Your task to perform on an android device: Open Youtube and go to "Your channel" Image 0: 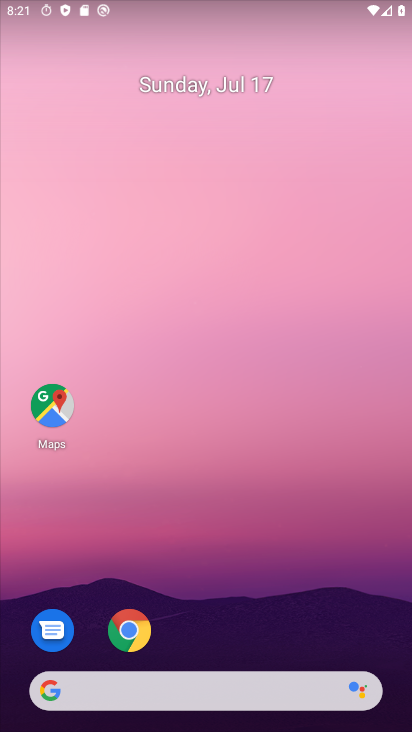
Step 0: click (91, 686)
Your task to perform on an android device: Open Youtube and go to "Your channel" Image 1: 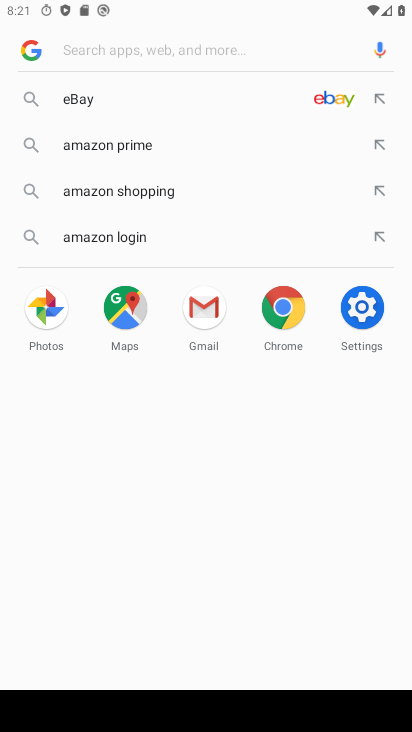
Step 1: press home button
Your task to perform on an android device: Open Youtube and go to "Your channel" Image 2: 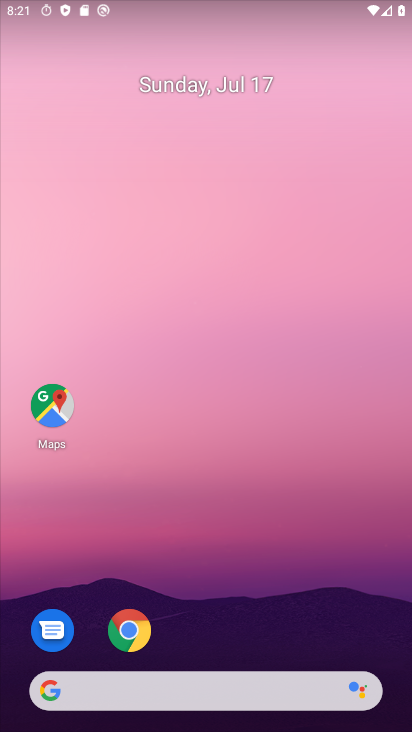
Step 2: drag from (66, 612) to (354, 44)
Your task to perform on an android device: Open Youtube and go to "Your channel" Image 3: 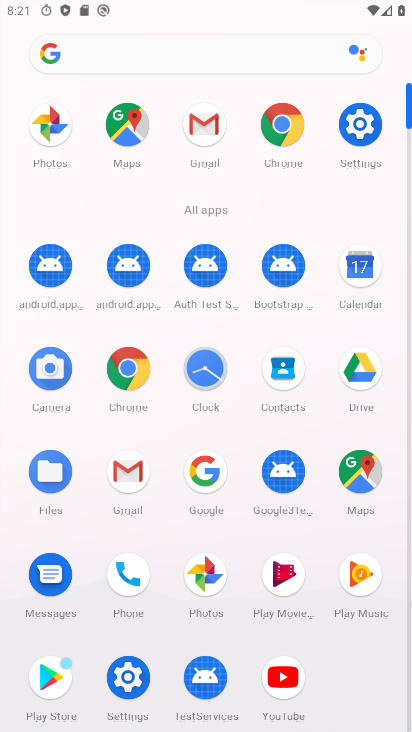
Step 3: click (286, 678)
Your task to perform on an android device: Open Youtube and go to "Your channel" Image 4: 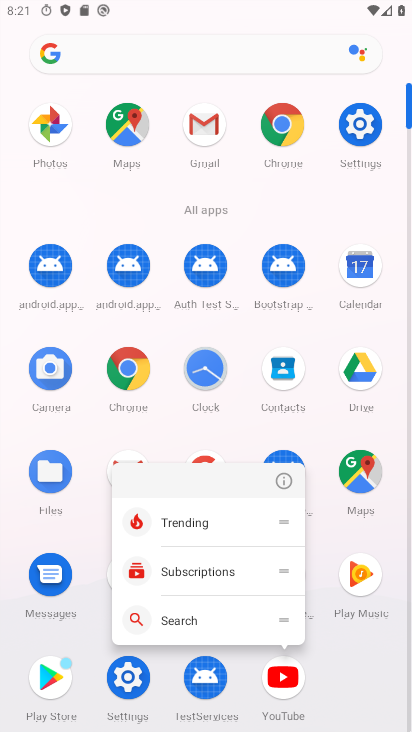
Step 4: click (286, 678)
Your task to perform on an android device: Open Youtube and go to "Your channel" Image 5: 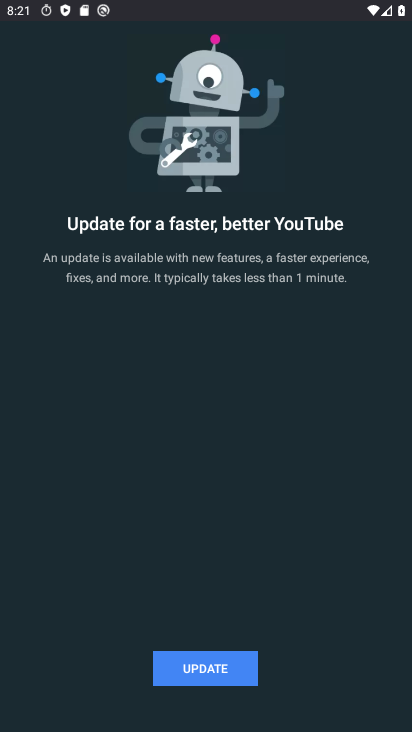
Step 5: click (204, 668)
Your task to perform on an android device: Open Youtube and go to "Your channel" Image 6: 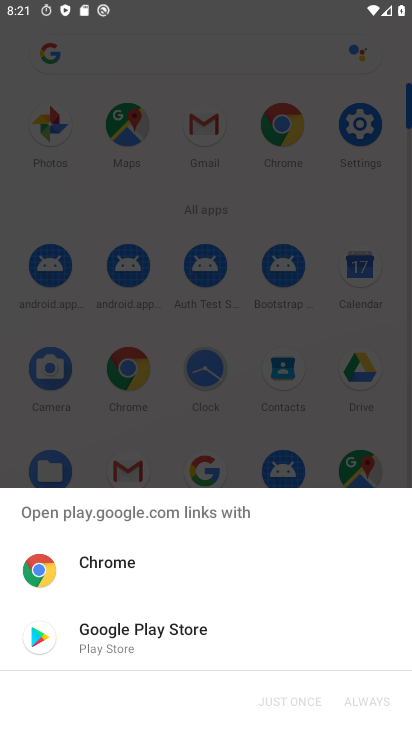
Step 6: click (99, 633)
Your task to perform on an android device: Open Youtube and go to "Your channel" Image 7: 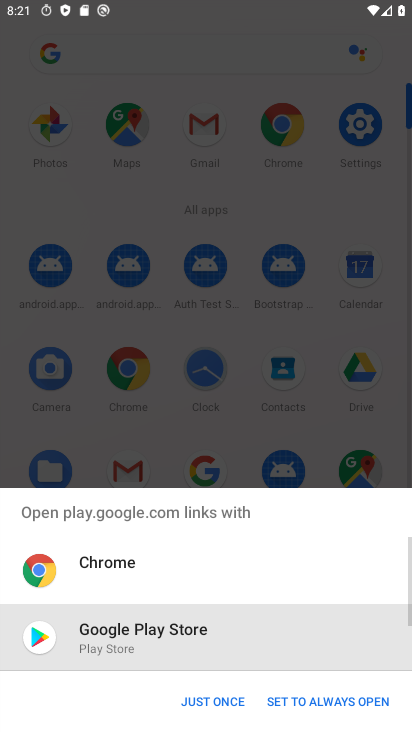
Step 7: click (222, 704)
Your task to perform on an android device: Open Youtube and go to "Your channel" Image 8: 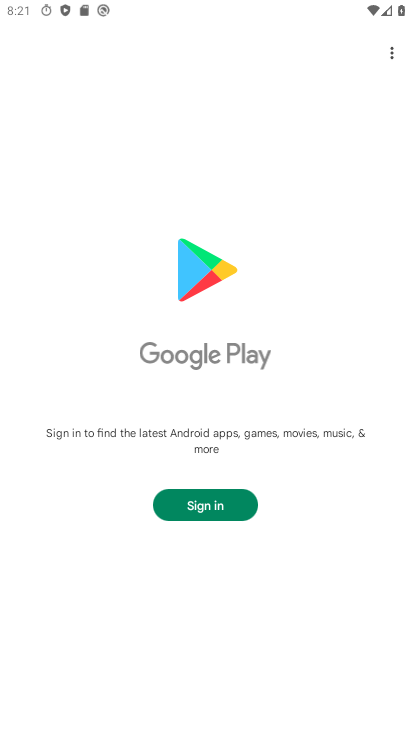
Step 8: task complete